Your task to perform on an android device: turn off sleep mode Image 0: 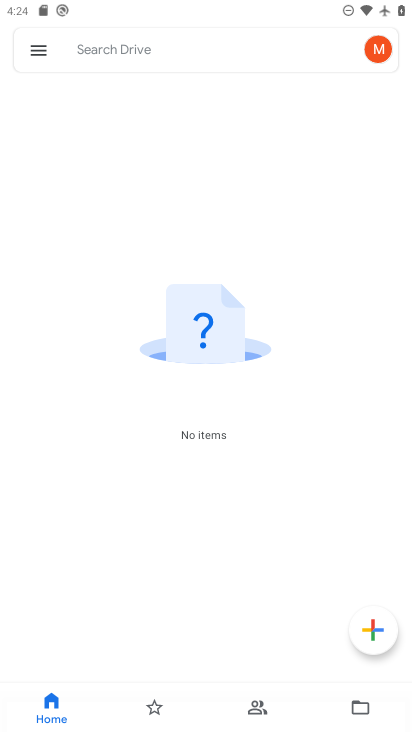
Step 0: press home button
Your task to perform on an android device: turn off sleep mode Image 1: 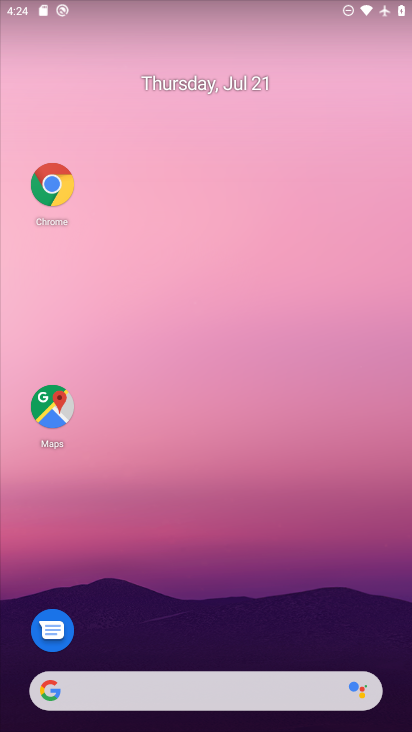
Step 1: drag from (167, 668) to (92, 94)
Your task to perform on an android device: turn off sleep mode Image 2: 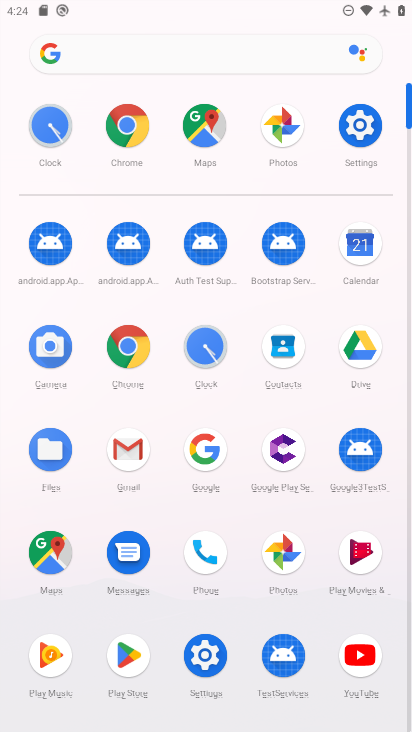
Step 2: click (363, 110)
Your task to perform on an android device: turn off sleep mode Image 3: 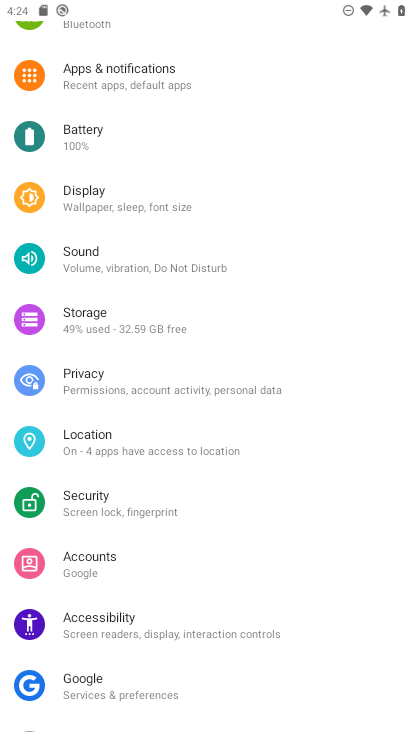
Step 3: click (61, 199)
Your task to perform on an android device: turn off sleep mode Image 4: 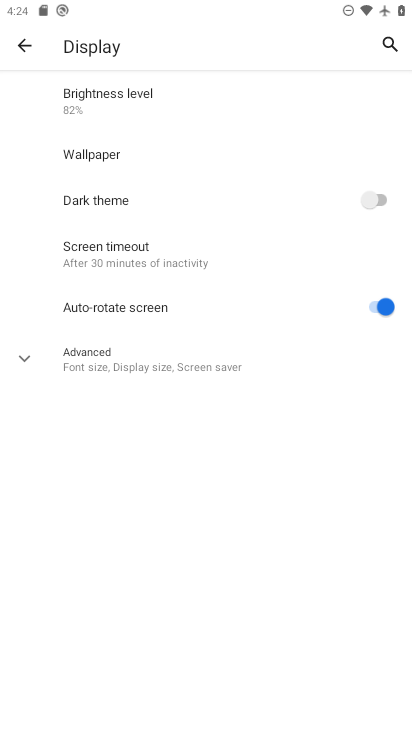
Step 4: click (106, 346)
Your task to perform on an android device: turn off sleep mode Image 5: 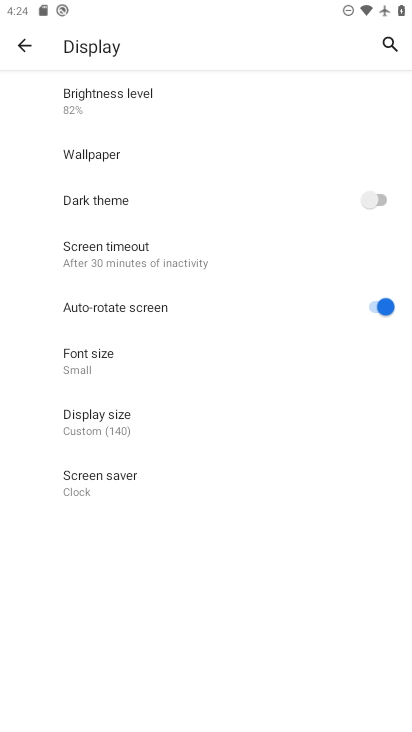
Step 5: task complete